Your task to perform on an android device: Check the weather Image 0: 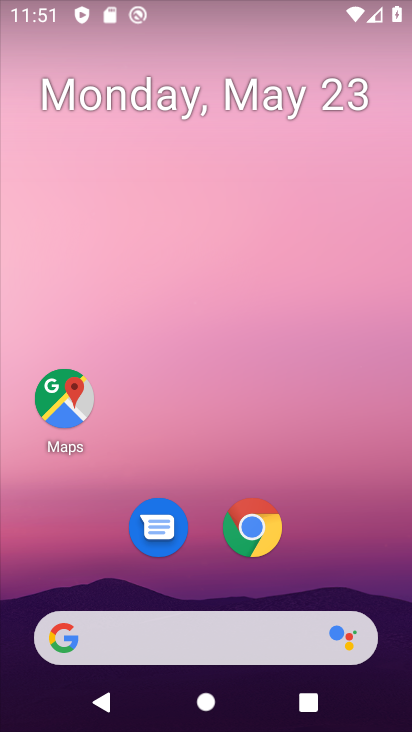
Step 0: press home button
Your task to perform on an android device: Check the weather Image 1: 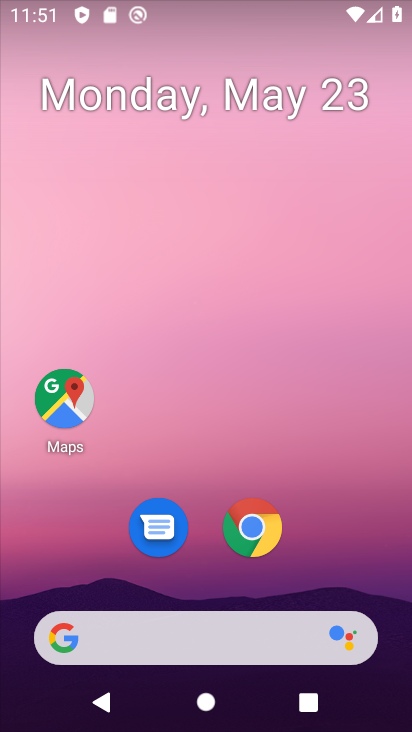
Step 1: click (66, 639)
Your task to perform on an android device: Check the weather Image 2: 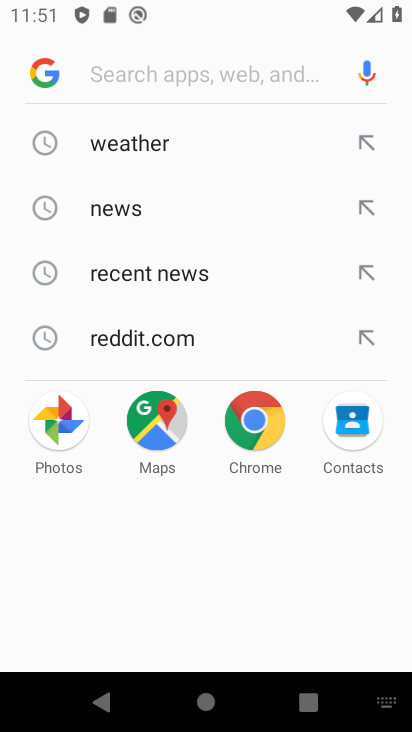
Step 2: click (145, 140)
Your task to perform on an android device: Check the weather Image 3: 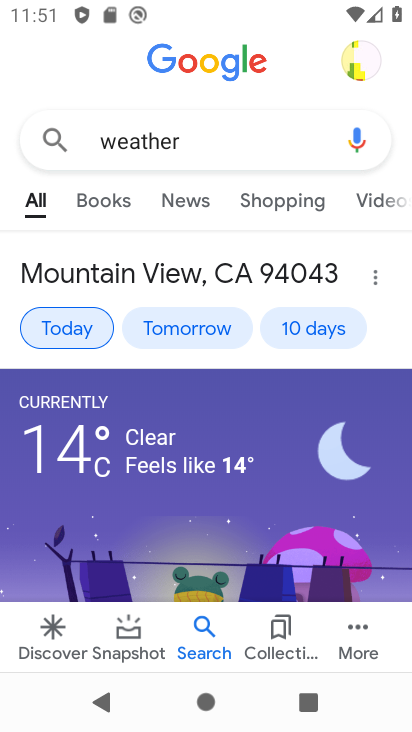
Step 3: task complete